Your task to perform on an android device: turn on the 12-hour format for clock Image 0: 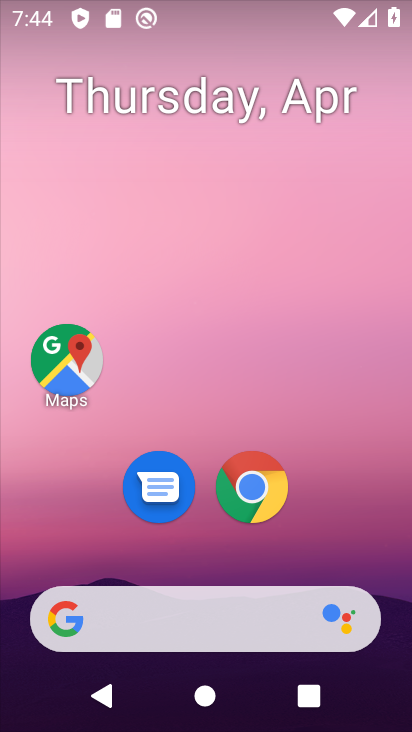
Step 0: drag from (368, 546) to (313, 83)
Your task to perform on an android device: turn on the 12-hour format for clock Image 1: 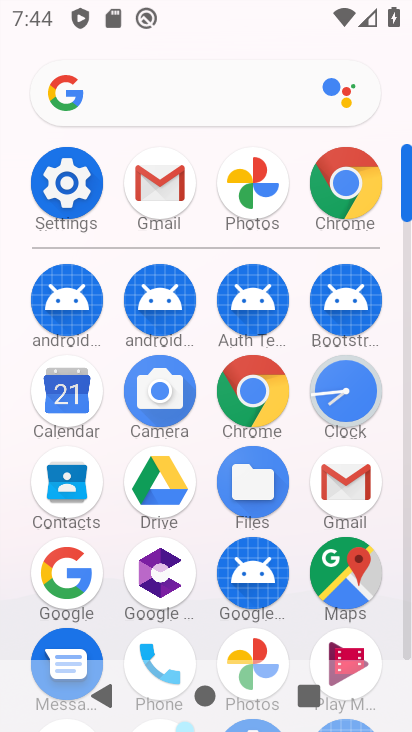
Step 1: click (345, 383)
Your task to perform on an android device: turn on the 12-hour format for clock Image 2: 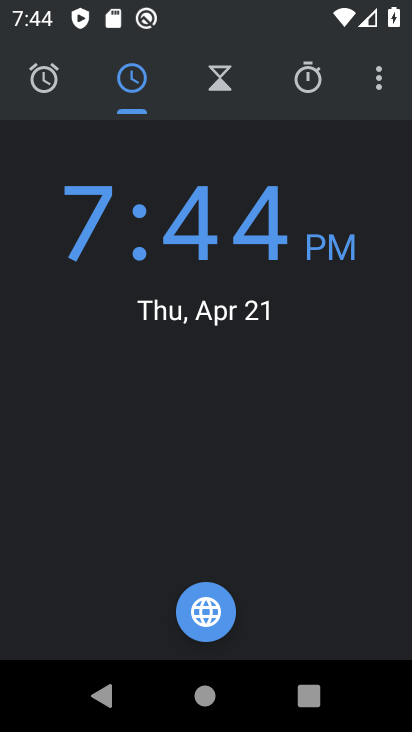
Step 2: click (373, 73)
Your task to perform on an android device: turn on the 12-hour format for clock Image 3: 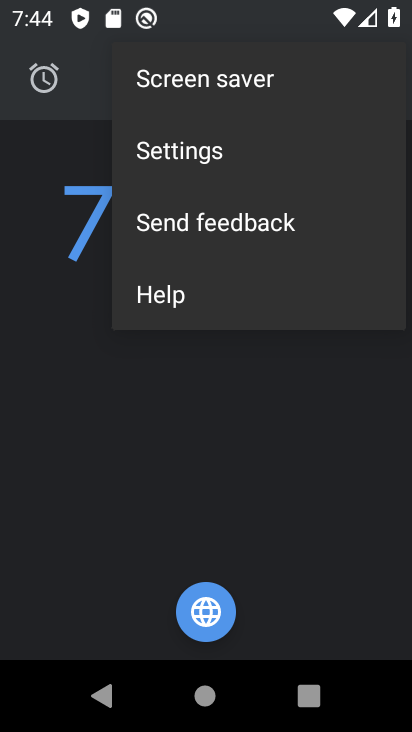
Step 3: click (289, 142)
Your task to perform on an android device: turn on the 12-hour format for clock Image 4: 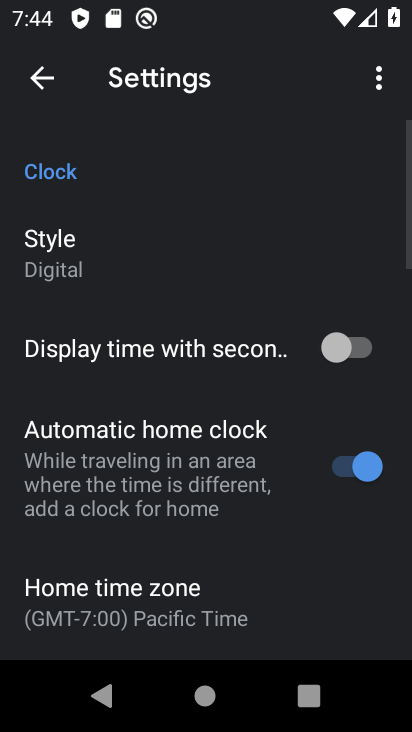
Step 4: drag from (181, 568) to (228, 371)
Your task to perform on an android device: turn on the 12-hour format for clock Image 5: 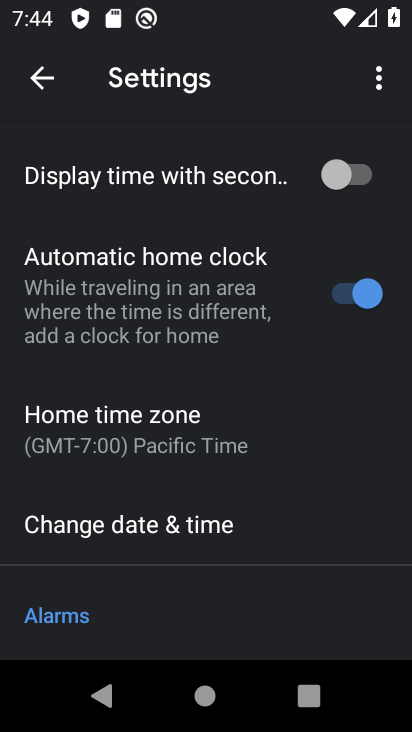
Step 5: click (153, 530)
Your task to perform on an android device: turn on the 12-hour format for clock Image 6: 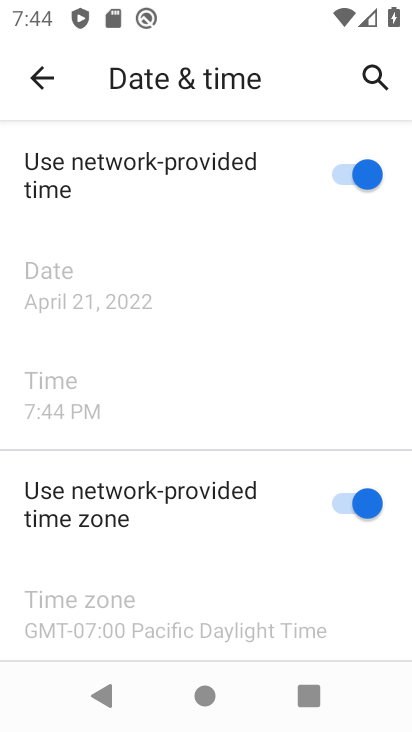
Step 6: task complete